Your task to perform on an android device: Go to accessibility settings Image 0: 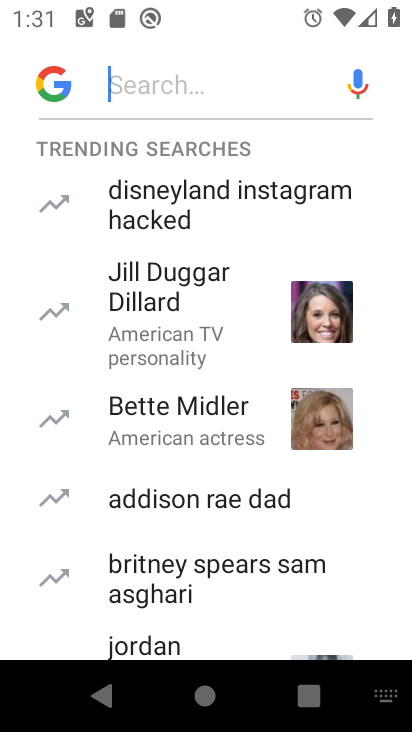
Step 0: press home button
Your task to perform on an android device: Go to accessibility settings Image 1: 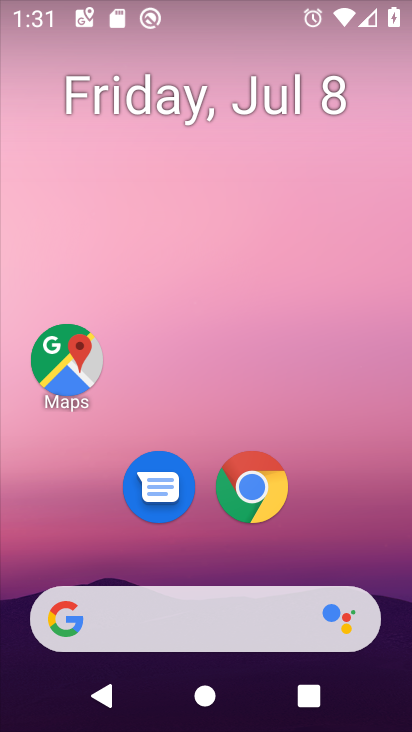
Step 1: drag from (365, 491) to (365, 164)
Your task to perform on an android device: Go to accessibility settings Image 2: 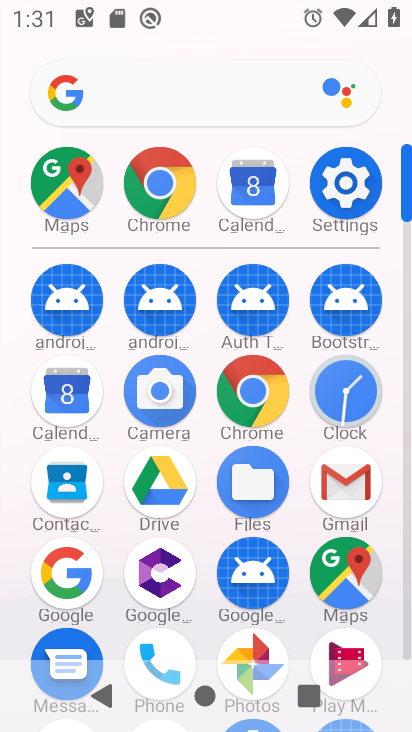
Step 2: click (356, 195)
Your task to perform on an android device: Go to accessibility settings Image 3: 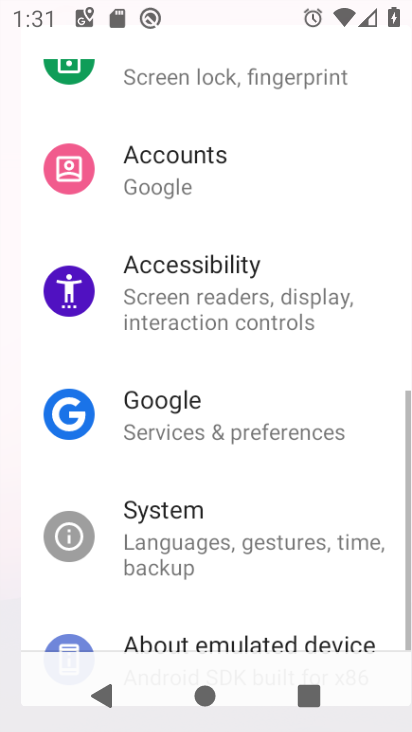
Step 3: click (356, 195)
Your task to perform on an android device: Go to accessibility settings Image 4: 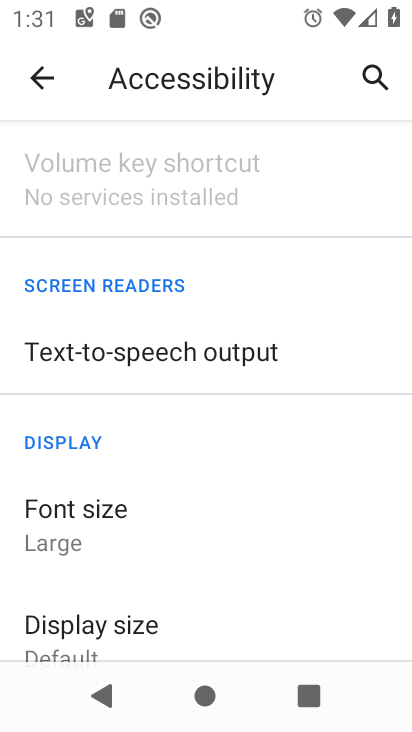
Step 4: task complete